Your task to perform on an android device: turn notification dots off Image 0: 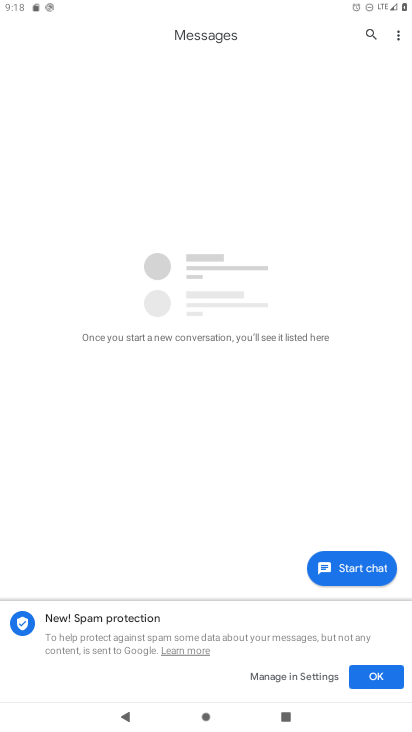
Step 0: press home button
Your task to perform on an android device: turn notification dots off Image 1: 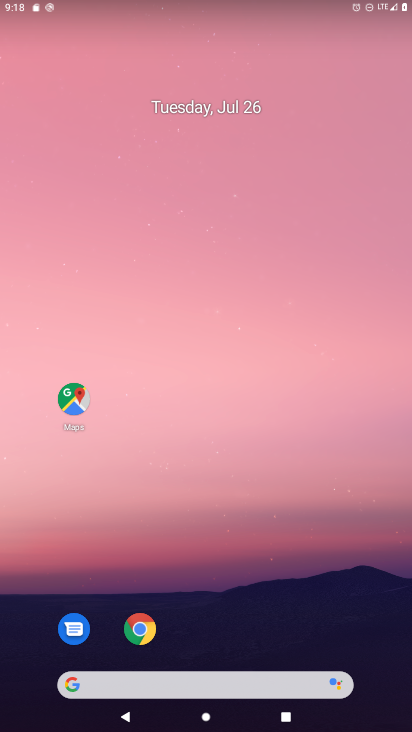
Step 1: drag from (231, 645) to (225, 6)
Your task to perform on an android device: turn notification dots off Image 2: 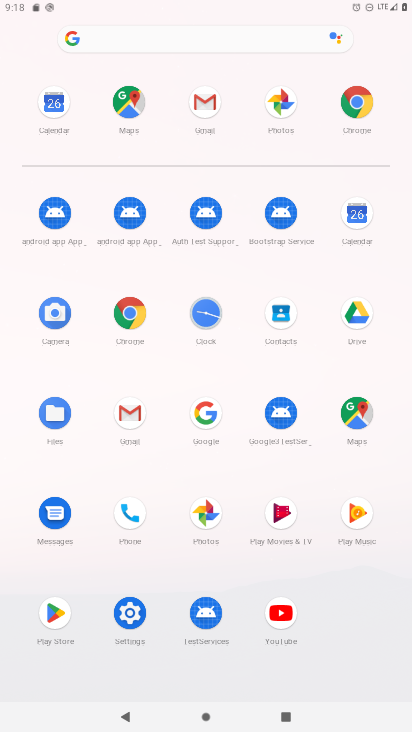
Step 2: click (123, 623)
Your task to perform on an android device: turn notification dots off Image 3: 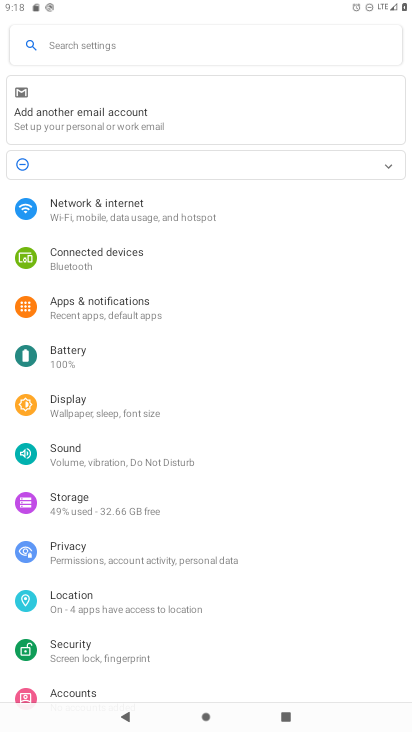
Step 3: click (110, 317)
Your task to perform on an android device: turn notification dots off Image 4: 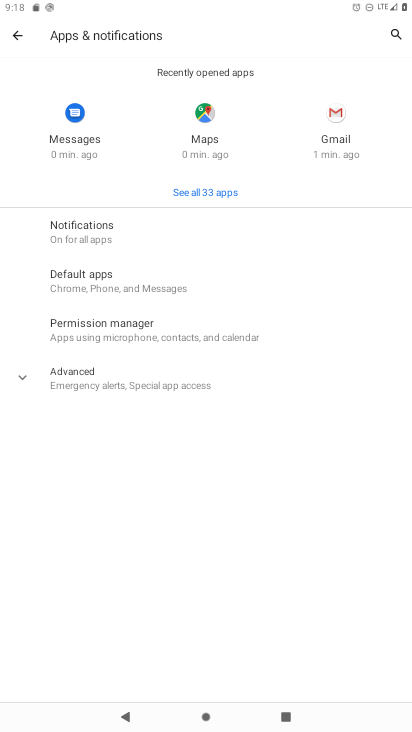
Step 4: click (95, 239)
Your task to perform on an android device: turn notification dots off Image 5: 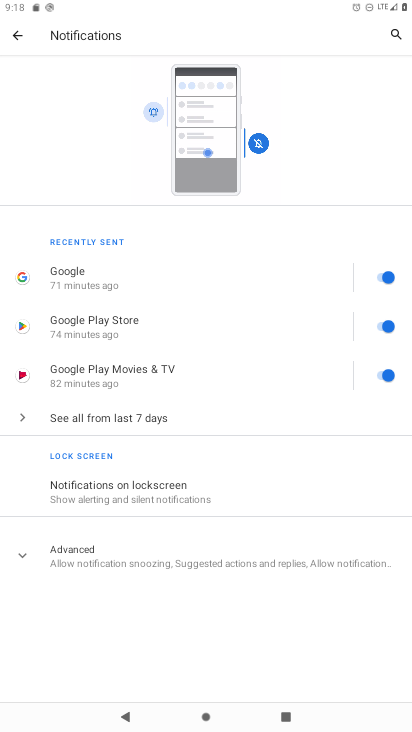
Step 5: click (165, 551)
Your task to perform on an android device: turn notification dots off Image 6: 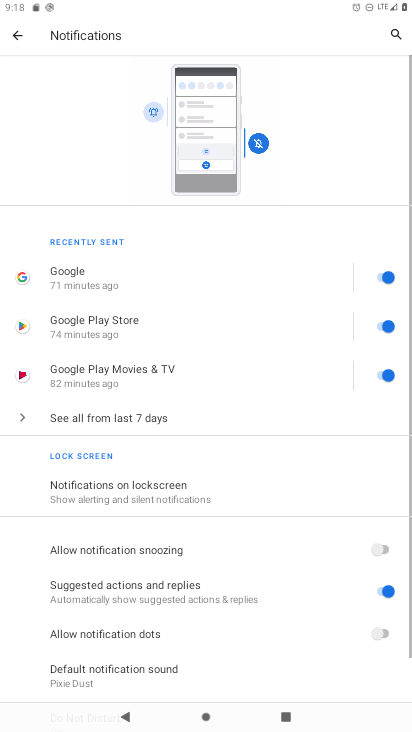
Step 6: task complete